Your task to perform on an android device: change alarm snooze length Image 0: 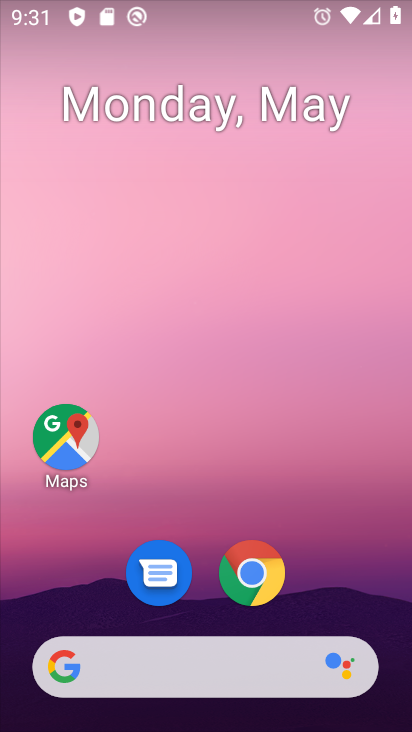
Step 0: drag from (323, 604) to (316, 118)
Your task to perform on an android device: change alarm snooze length Image 1: 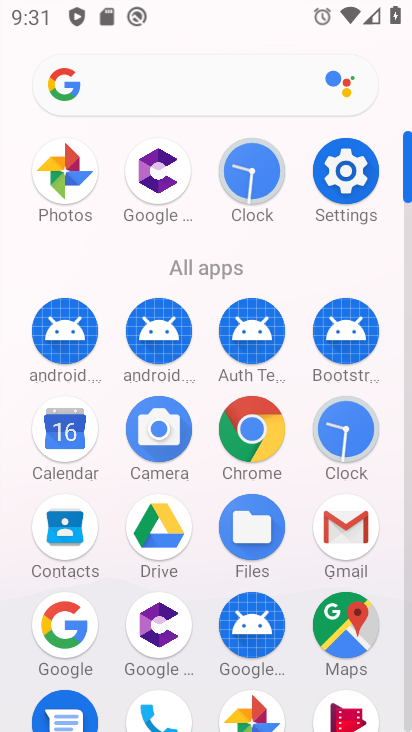
Step 1: click (246, 180)
Your task to perform on an android device: change alarm snooze length Image 2: 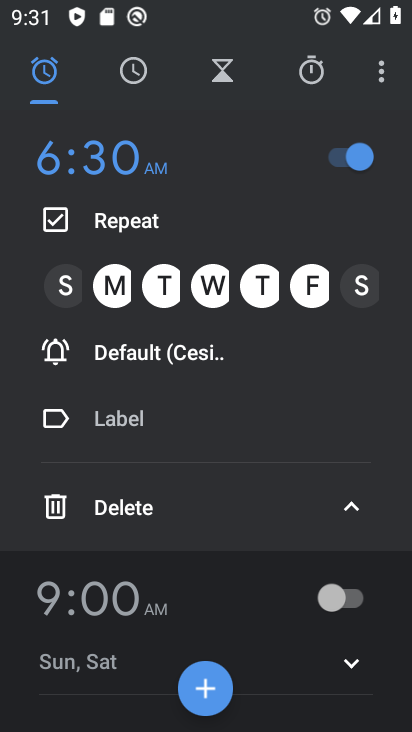
Step 2: click (384, 70)
Your task to perform on an android device: change alarm snooze length Image 3: 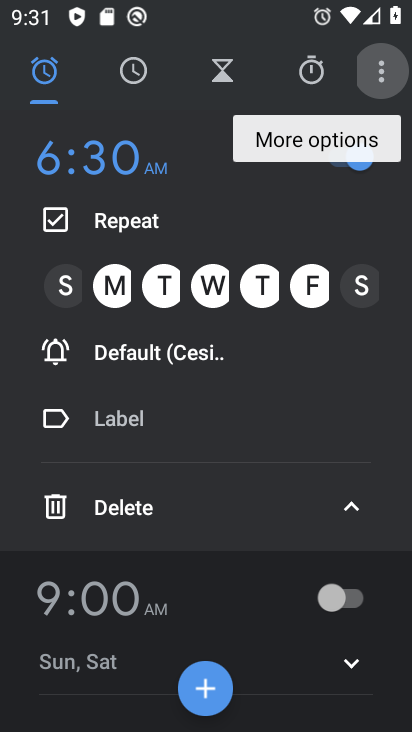
Step 3: click (384, 70)
Your task to perform on an android device: change alarm snooze length Image 4: 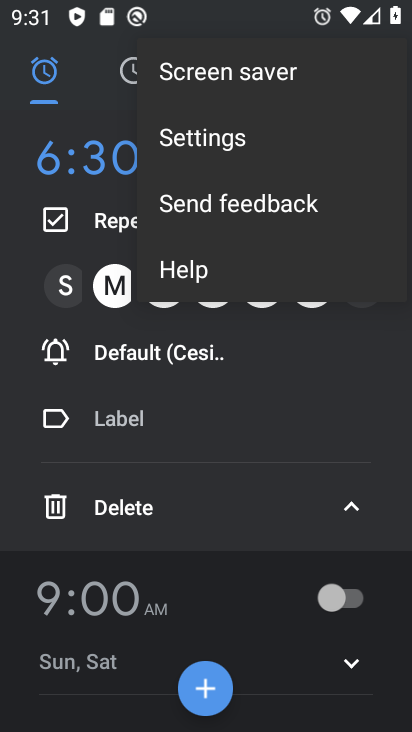
Step 4: click (243, 130)
Your task to perform on an android device: change alarm snooze length Image 5: 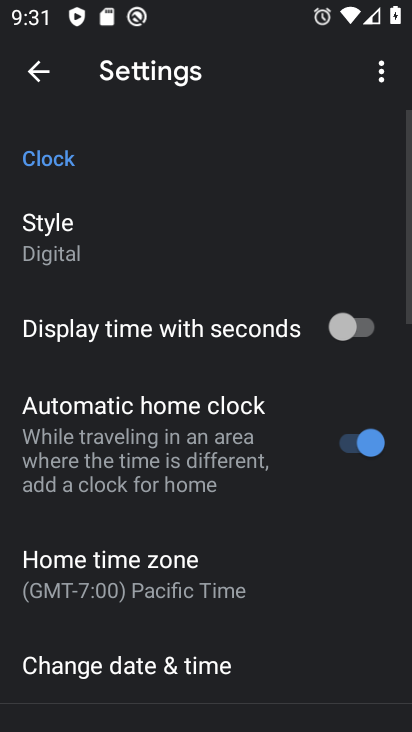
Step 5: drag from (320, 621) to (322, 171)
Your task to perform on an android device: change alarm snooze length Image 6: 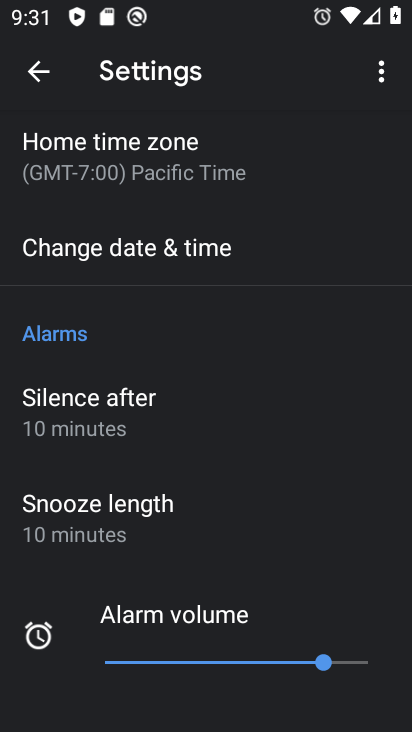
Step 6: click (50, 493)
Your task to perform on an android device: change alarm snooze length Image 7: 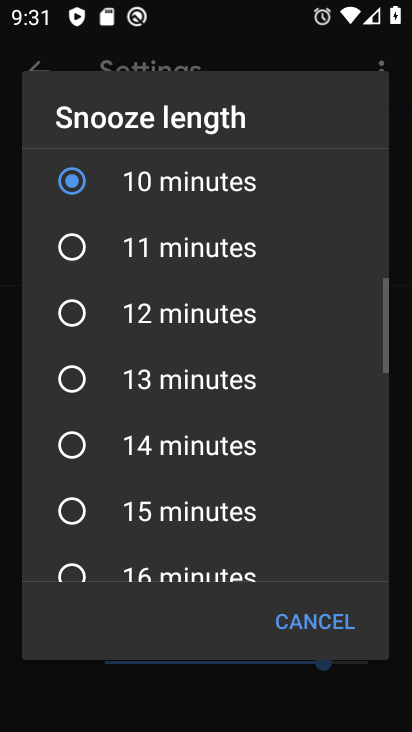
Step 7: click (195, 263)
Your task to perform on an android device: change alarm snooze length Image 8: 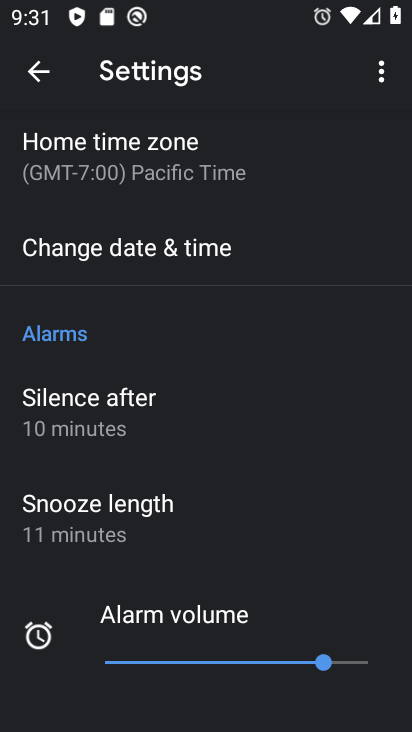
Step 8: task complete